Your task to perform on an android device: turn off improve location accuracy Image 0: 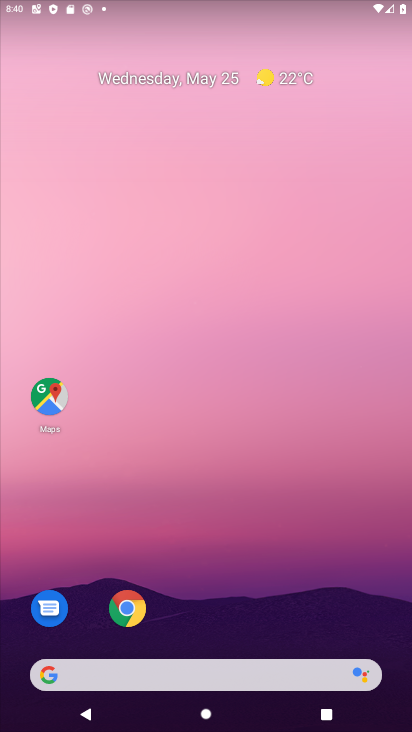
Step 0: drag from (246, 574) to (225, 96)
Your task to perform on an android device: turn off improve location accuracy Image 1: 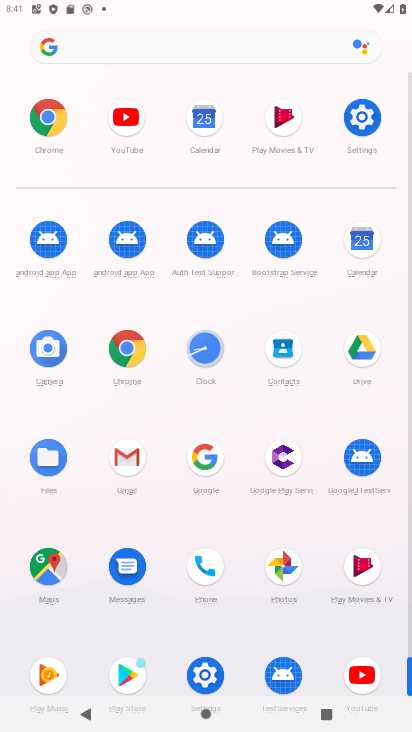
Step 1: click (206, 673)
Your task to perform on an android device: turn off improve location accuracy Image 2: 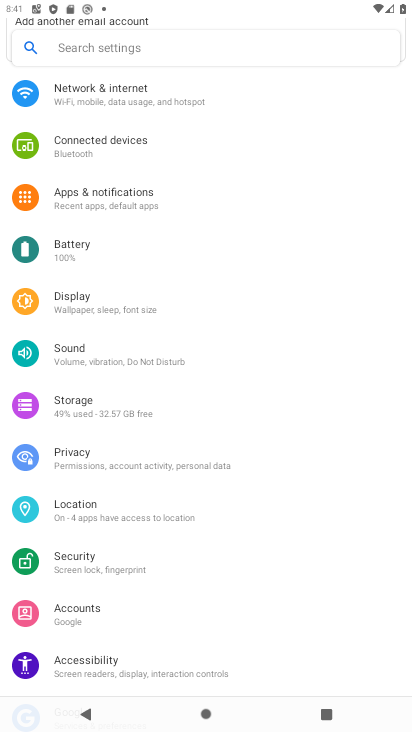
Step 2: click (180, 520)
Your task to perform on an android device: turn off improve location accuracy Image 3: 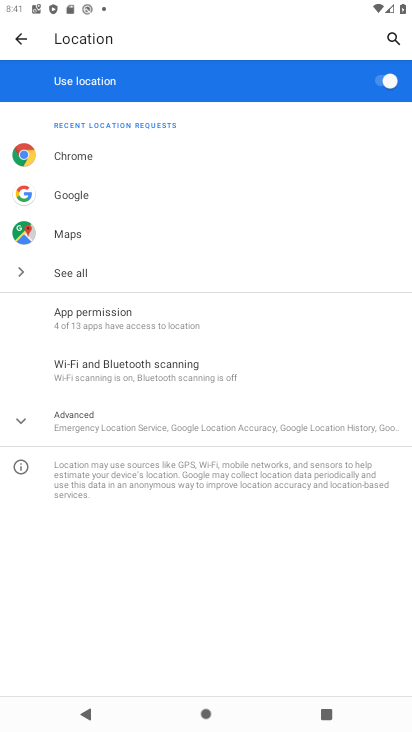
Step 3: click (147, 427)
Your task to perform on an android device: turn off improve location accuracy Image 4: 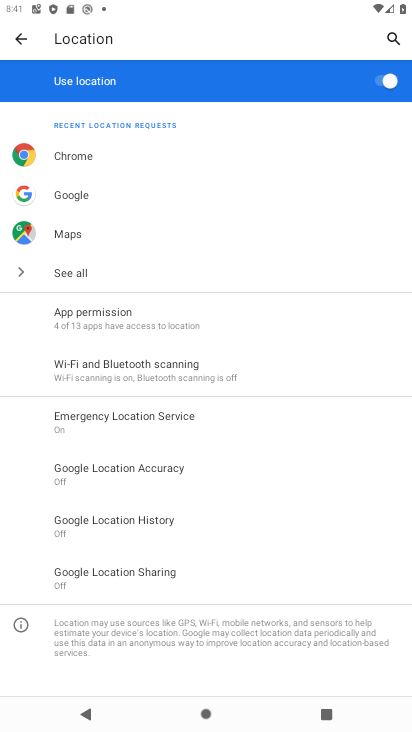
Step 4: click (152, 467)
Your task to perform on an android device: turn off improve location accuracy Image 5: 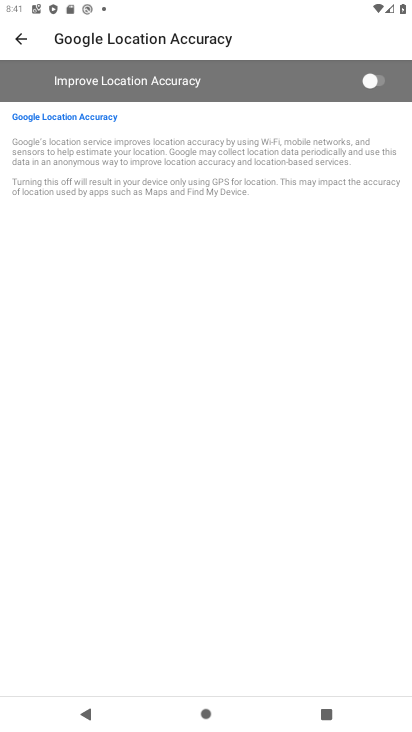
Step 5: task complete